Your task to perform on an android device: Open display settings Image 0: 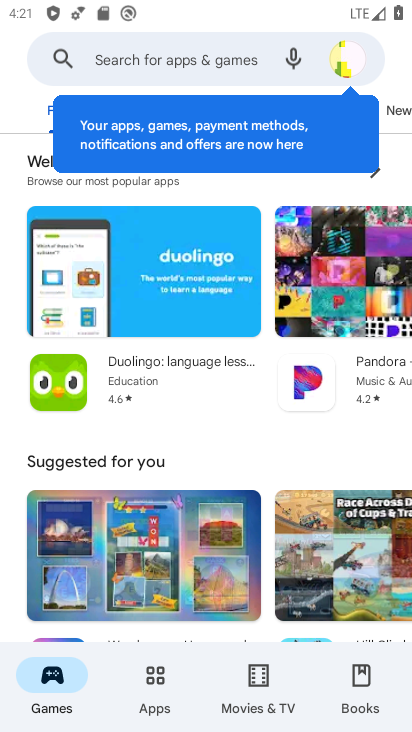
Step 0: press home button
Your task to perform on an android device: Open display settings Image 1: 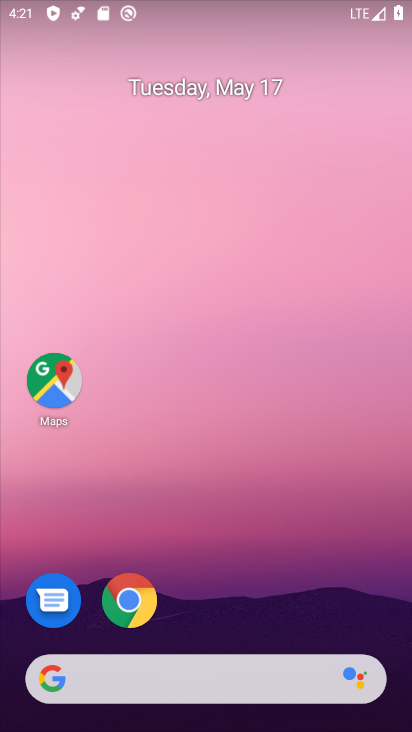
Step 1: drag from (370, 626) to (323, 84)
Your task to perform on an android device: Open display settings Image 2: 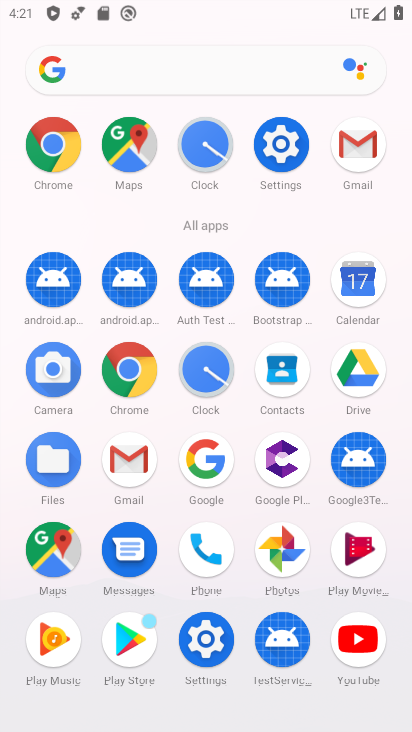
Step 2: click (209, 640)
Your task to perform on an android device: Open display settings Image 3: 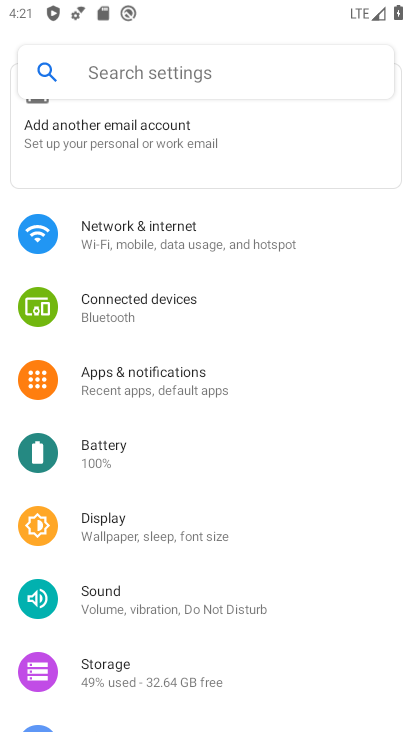
Step 3: click (105, 531)
Your task to perform on an android device: Open display settings Image 4: 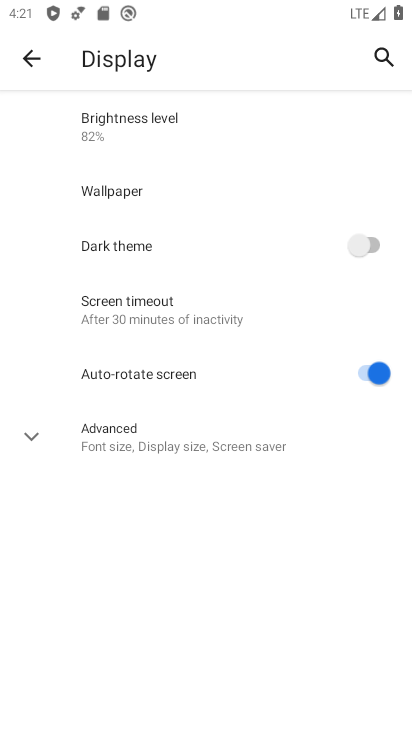
Step 4: task complete